Your task to perform on an android device: delete location history Image 0: 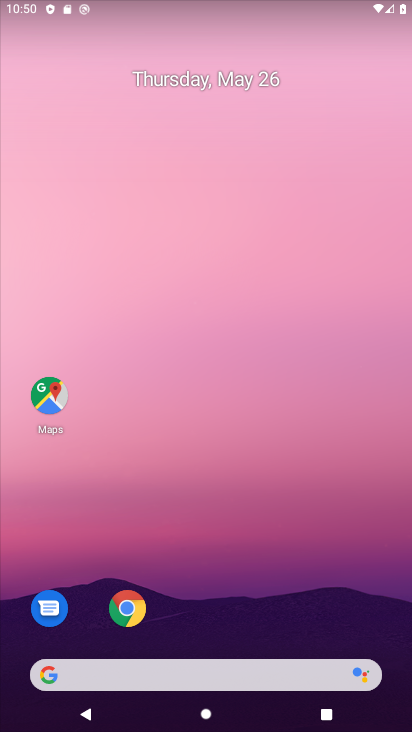
Step 0: drag from (269, 578) to (268, 83)
Your task to perform on an android device: delete location history Image 1: 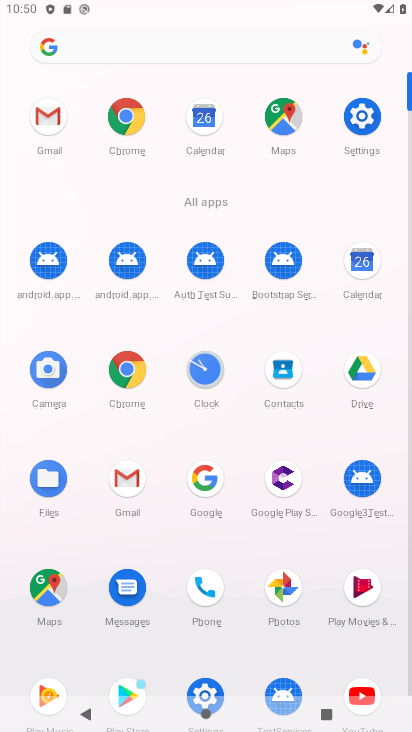
Step 1: click (353, 119)
Your task to perform on an android device: delete location history Image 2: 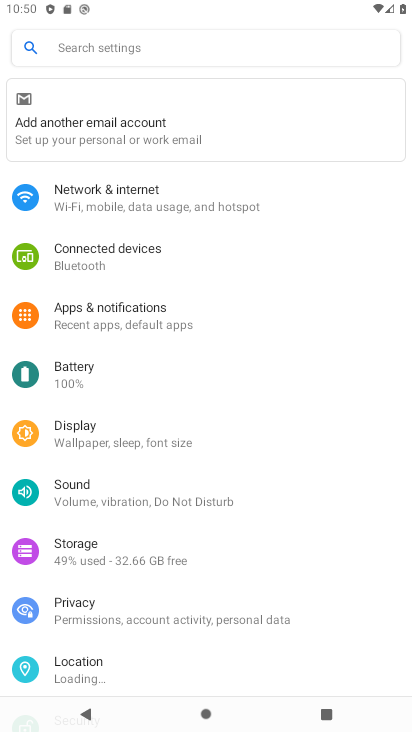
Step 2: drag from (171, 622) to (319, 229)
Your task to perform on an android device: delete location history Image 3: 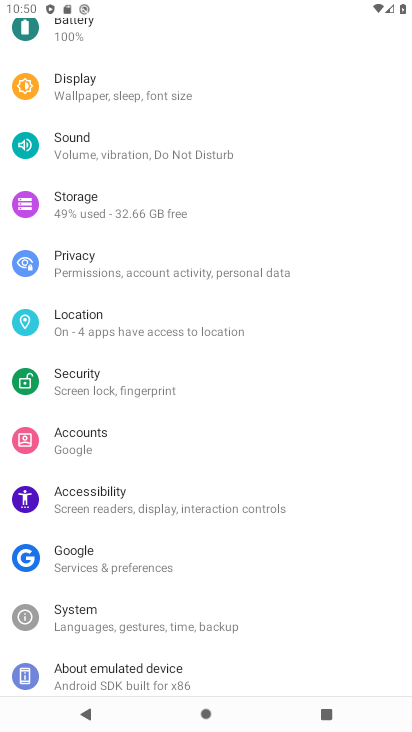
Step 3: drag from (141, 118) to (213, 326)
Your task to perform on an android device: delete location history Image 4: 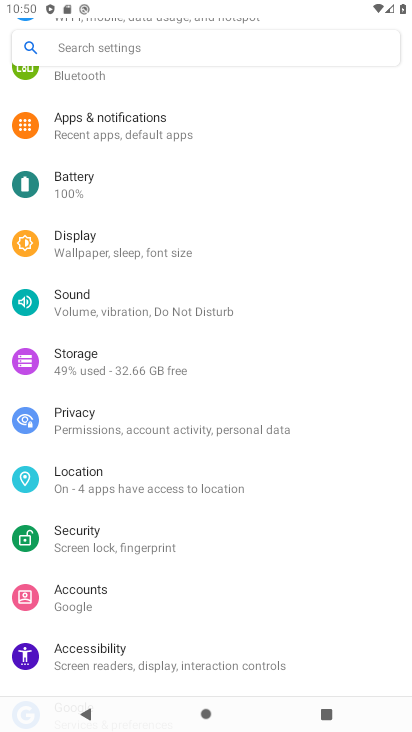
Step 4: click (121, 140)
Your task to perform on an android device: delete location history Image 5: 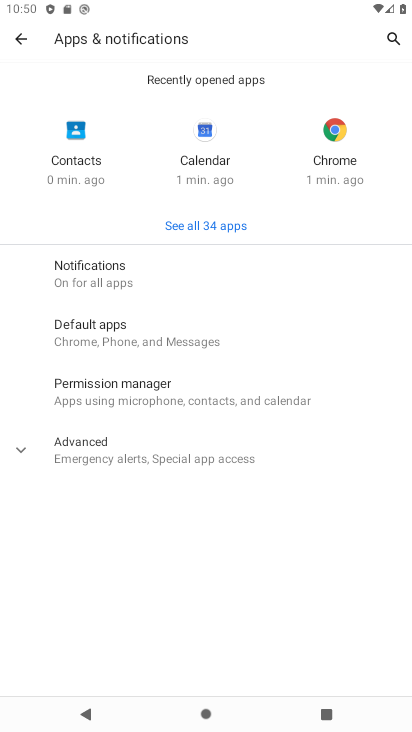
Step 5: click (104, 269)
Your task to perform on an android device: delete location history Image 6: 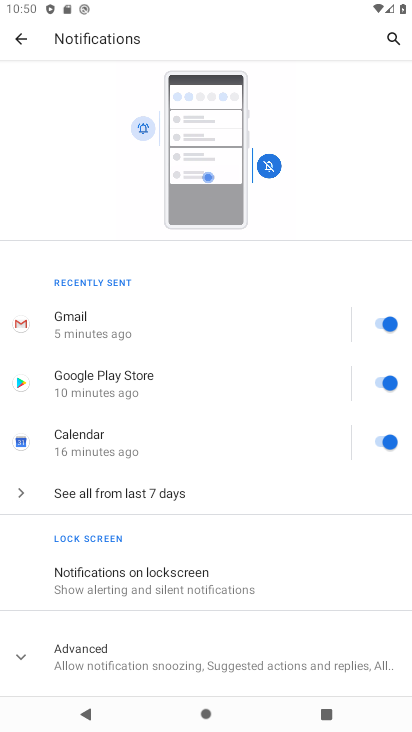
Step 6: click (12, 30)
Your task to perform on an android device: delete location history Image 7: 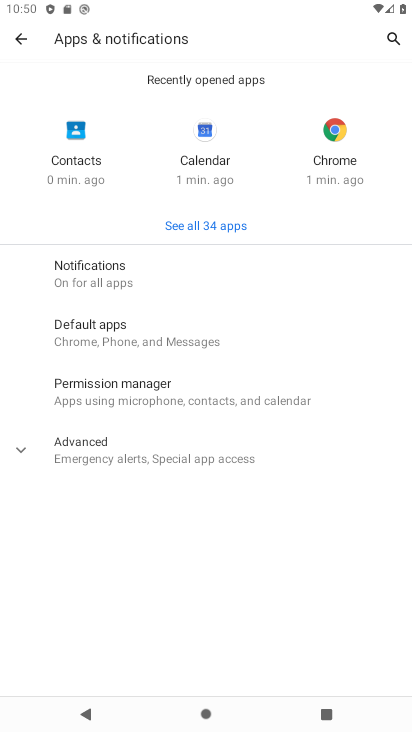
Step 7: click (197, 223)
Your task to perform on an android device: delete location history Image 8: 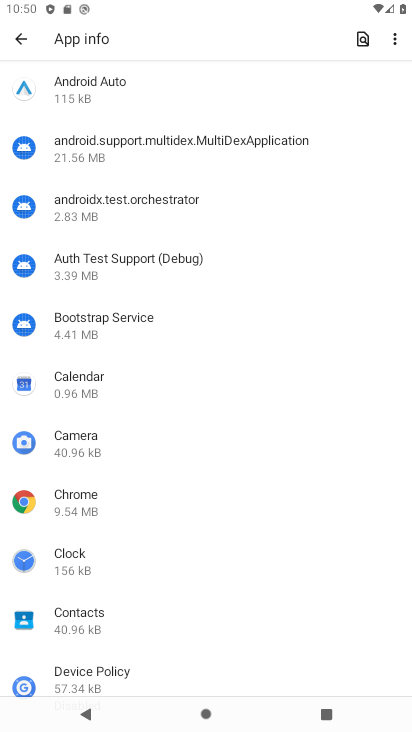
Step 8: drag from (123, 598) to (239, 62)
Your task to perform on an android device: delete location history Image 9: 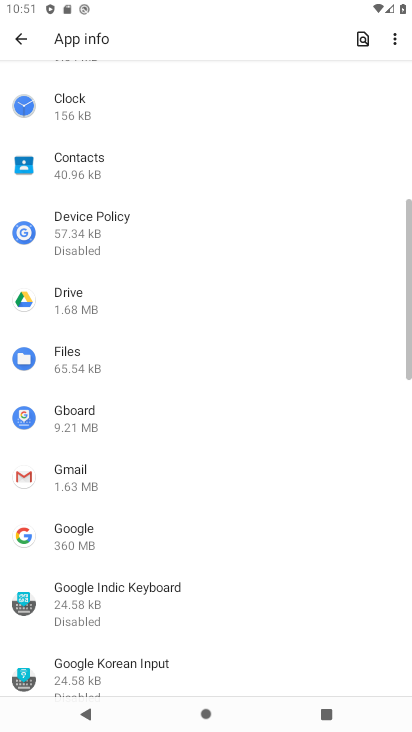
Step 9: drag from (105, 544) to (265, 72)
Your task to perform on an android device: delete location history Image 10: 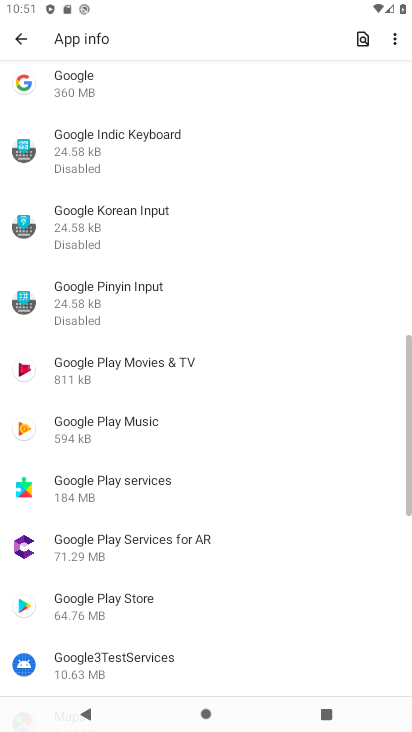
Step 10: drag from (135, 579) to (284, 154)
Your task to perform on an android device: delete location history Image 11: 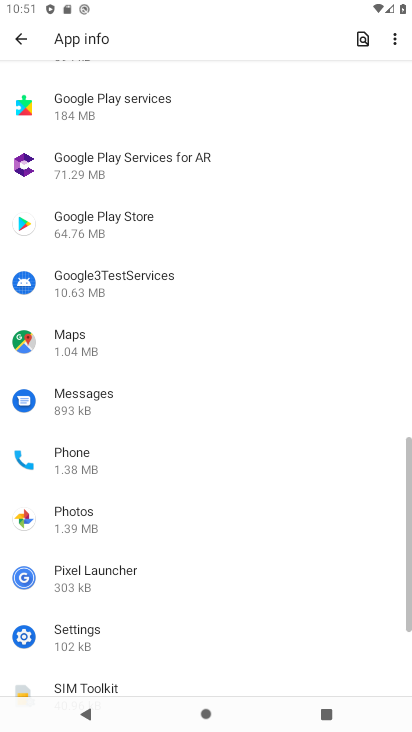
Step 11: click (78, 343)
Your task to perform on an android device: delete location history Image 12: 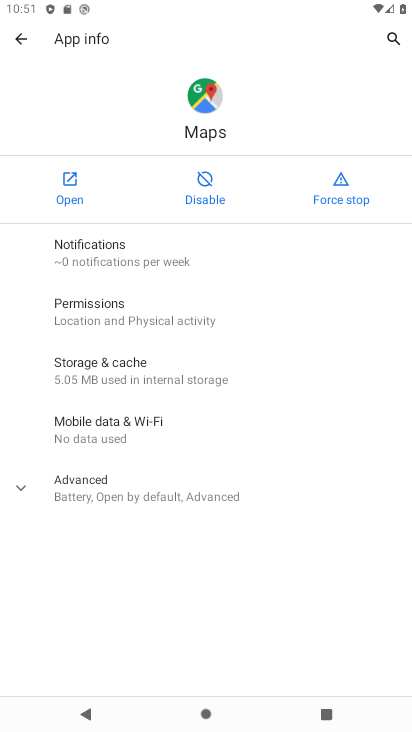
Step 12: click (72, 187)
Your task to perform on an android device: delete location history Image 13: 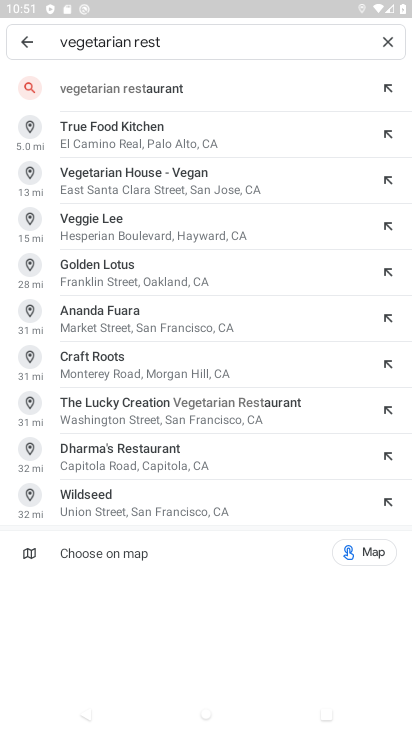
Step 13: click (34, 37)
Your task to perform on an android device: delete location history Image 14: 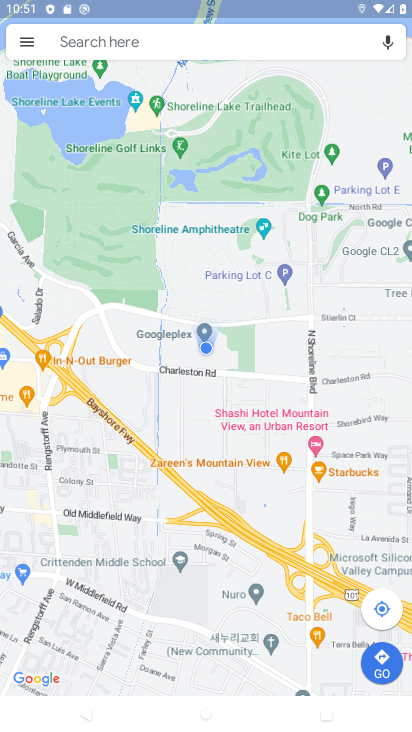
Step 14: click (33, 37)
Your task to perform on an android device: delete location history Image 15: 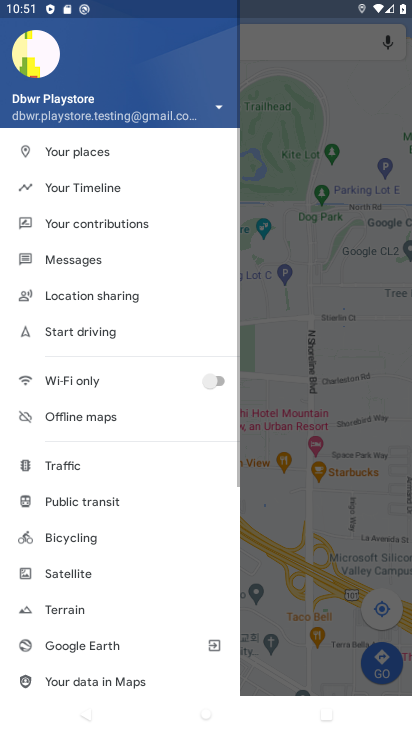
Step 15: drag from (85, 617) to (120, 177)
Your task to perform on an android device: delete location history Image 16: 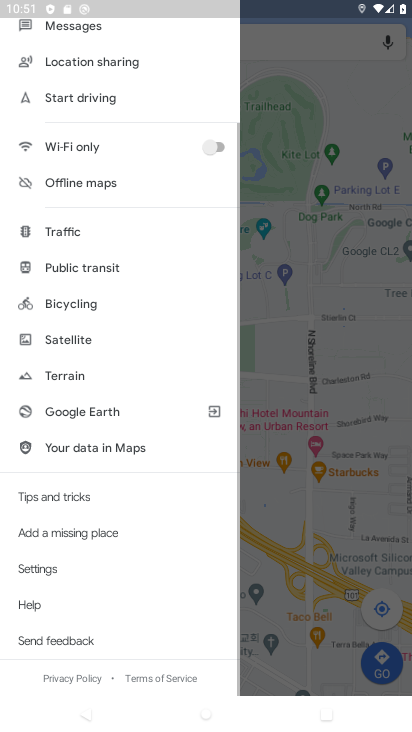
Step 16: click (52, 573)
Your task to perform on an android device: delete location history Image 17: 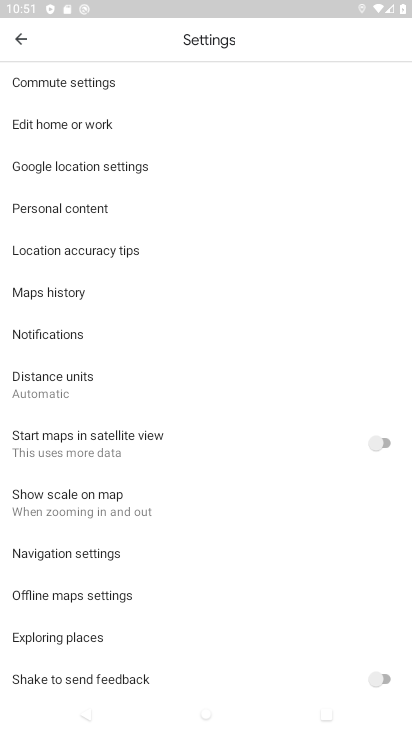
Step 17: click (63, 296)
Your task to perform on an android device: delete location history Image 18: 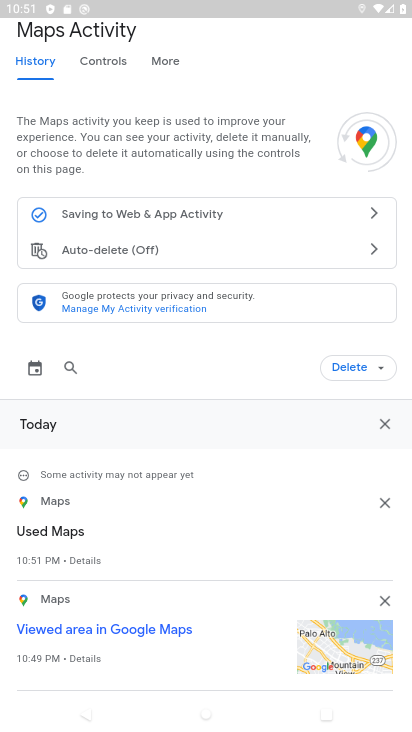
Step 18: click (374, 367)
Your task to perform on an android device: delete location history Image 19: 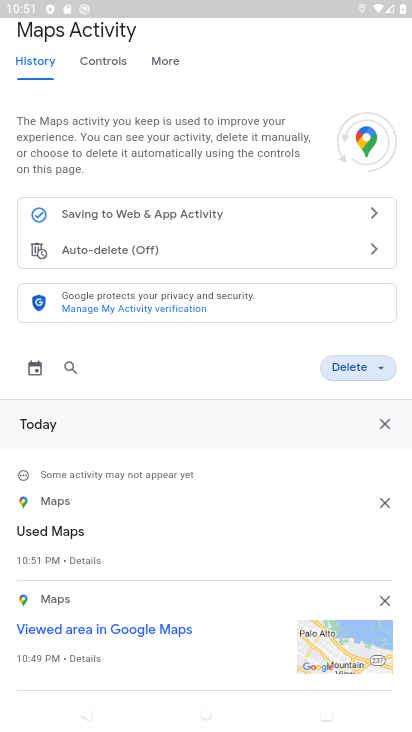
Step 19: click (366, 366)
Your task to perform on an android device: delete location history Image 20: 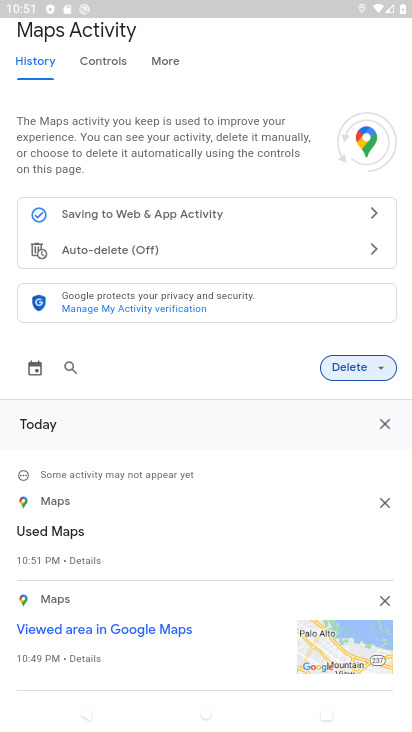
Step 20: click (359, 374)
Your task to perform on an android device: delete location history Image 21: 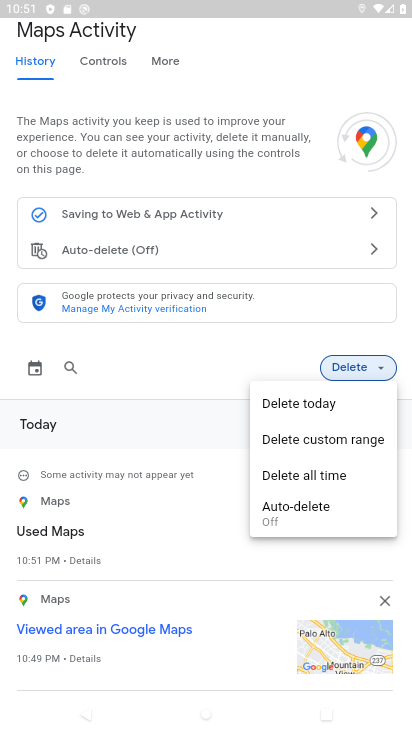
Step 21: click (324, 470)
Your task to perform on an android device: delete location history Image 22: 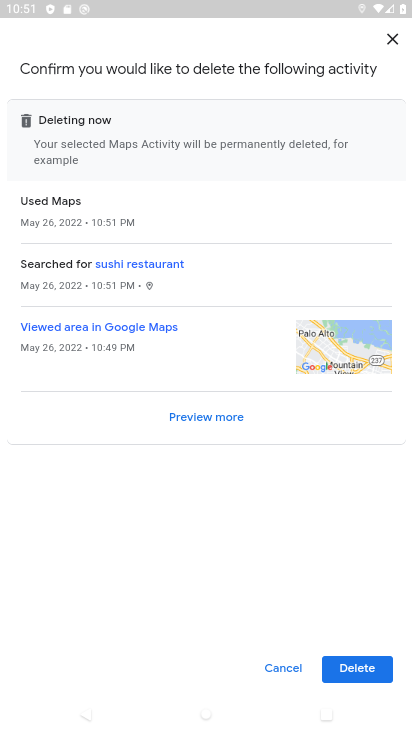
Step 22: click (359, 665)
Your task to perform on an android device: delete location history Image 23: 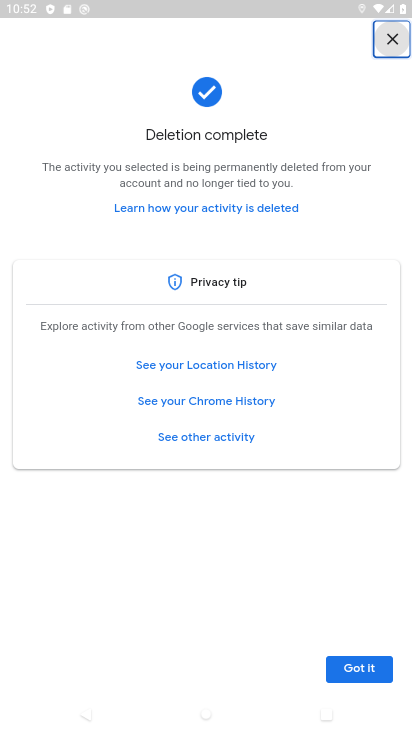
Step 23: task complete